Your task to perform on an android device: What's the weather? Image 0: 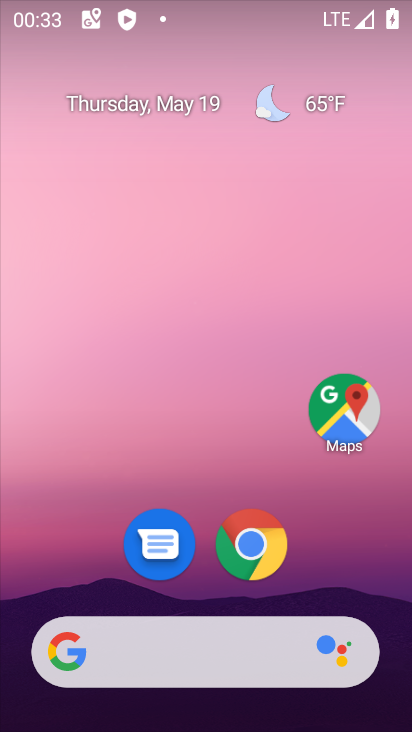
Step 0: click (233, 653)
Your task to perform on an android device: What's the weather? Image 1: 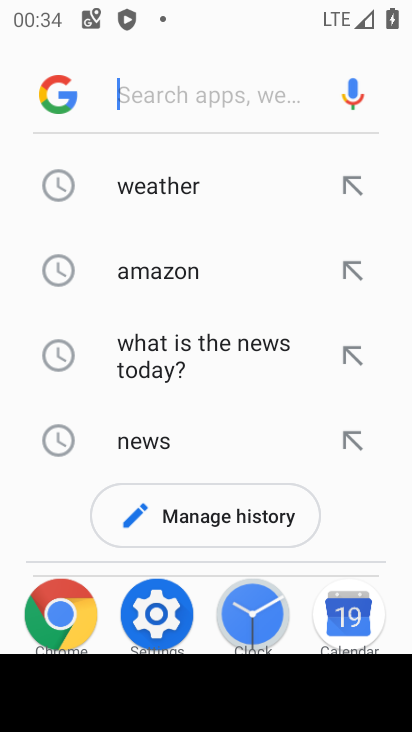
Step 1: click (166, 193)
Your task to perform on an android device: What's the weather? Image 2: 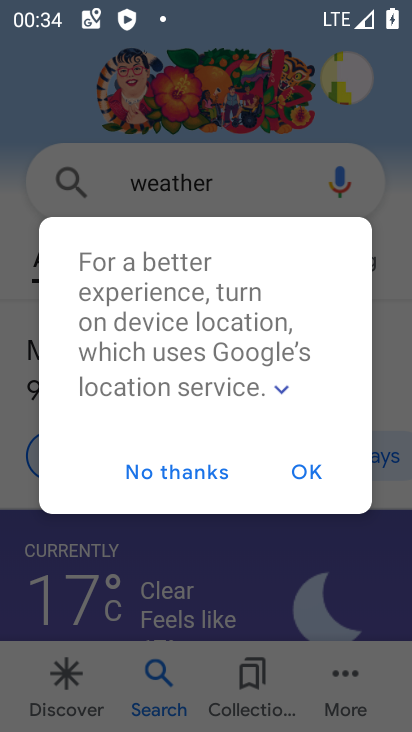
Step 2: click (189, 482)
Your task to perform on an android device: What's the weather? Image 3: 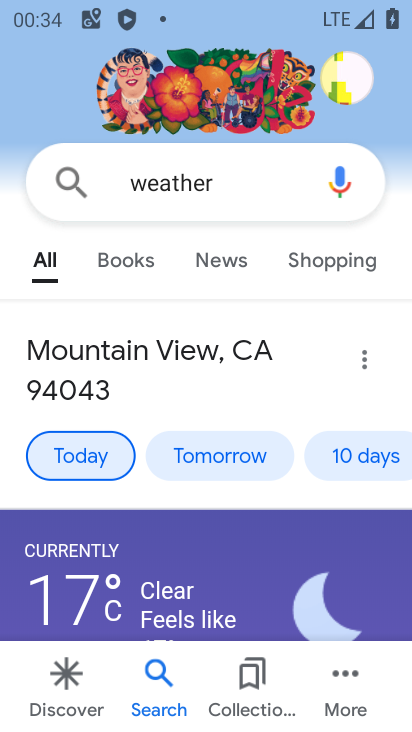
Step 3: task complete